Your task to perform on an android device: turn on data saver in the chrome app Image 0: 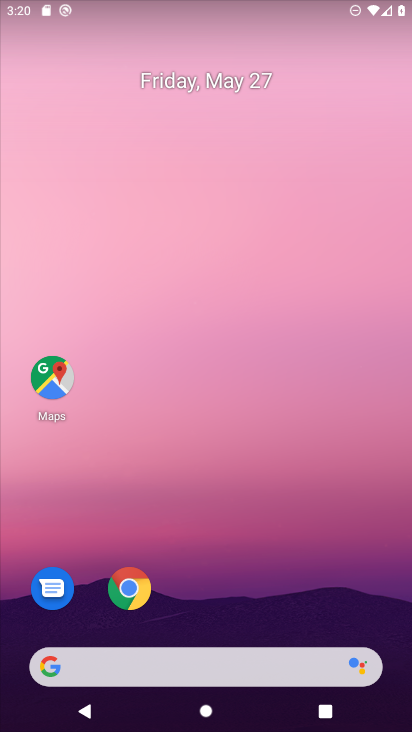
Step 0: click (124, 585)
Your task to perform on an android device: turn on data saver in the chrome app Image 1: 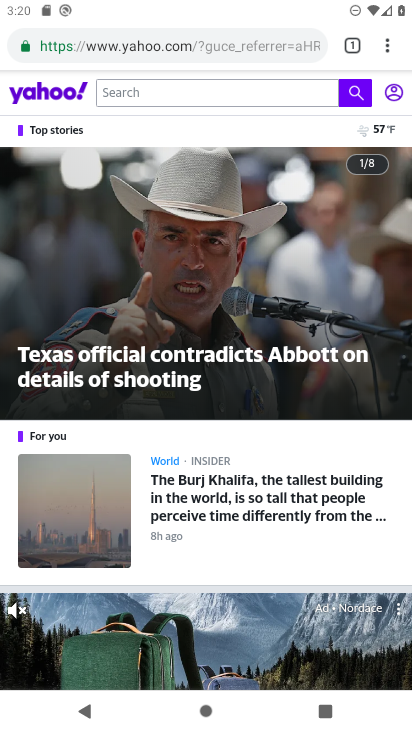
Step 1: click (377, 51)
Your task to perform on an android device: turn on data saver in the chrome app Image 2: 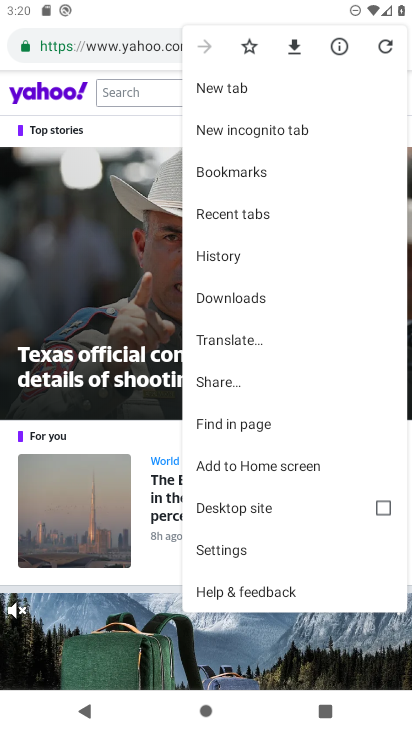
Step 2: click (238, 547)
Your task to perform on an android device: turn on data saver in the chrome app Image 3: 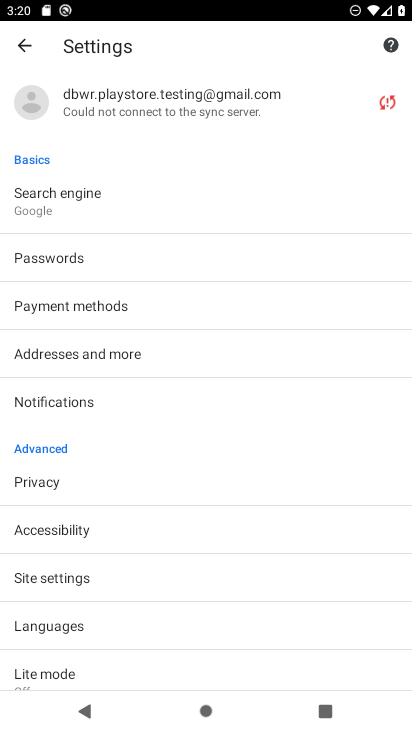
Step 3: drag from (228, 532) to (268, 337)
Your task to perform on an android device: turn on data saver in the chrome app Image 4: 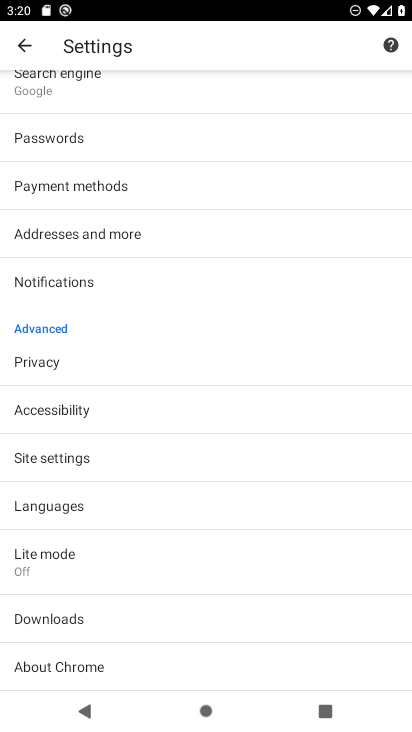
Step 4: click (99, 557)
Your task to perform on an android device: turn on data saver in the chrome app Image 5: 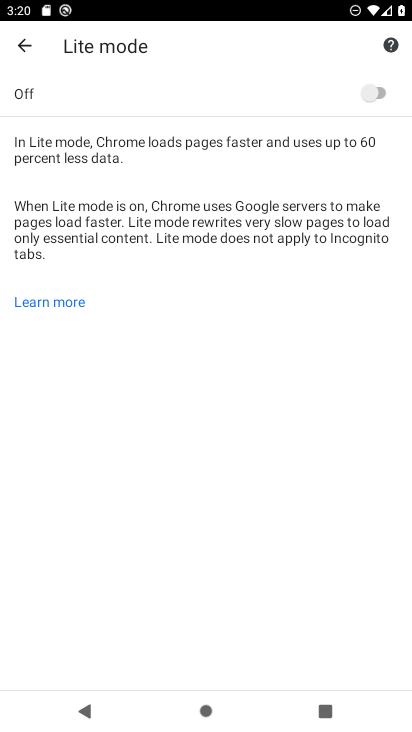
Step 5: click (367, 98)
Your task to perform on an android device: turn on data saver in the chrome app Image 6: 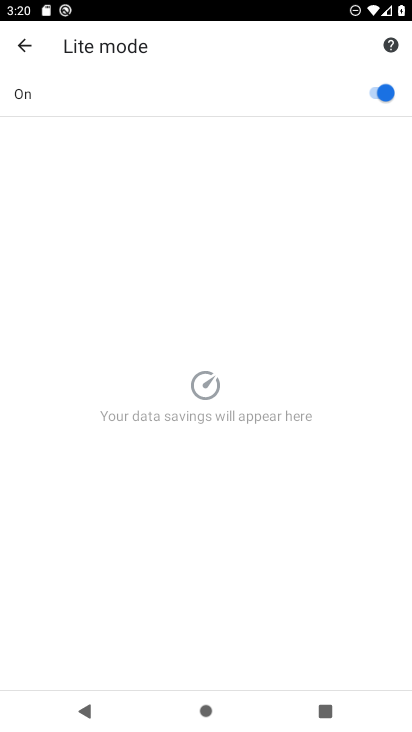
Step 6: task complete